Your task to perform on an android device: turn pop-ups off in chrome Image 0: 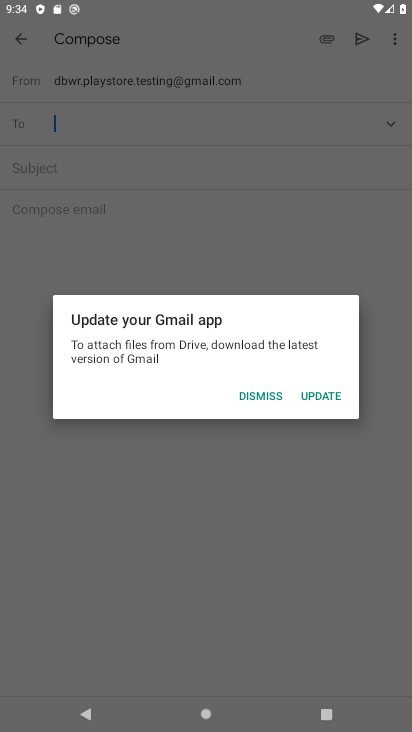
Step 0: press home button
Your task to perform on an android device: turn pop-ups off in chrome Image 1: 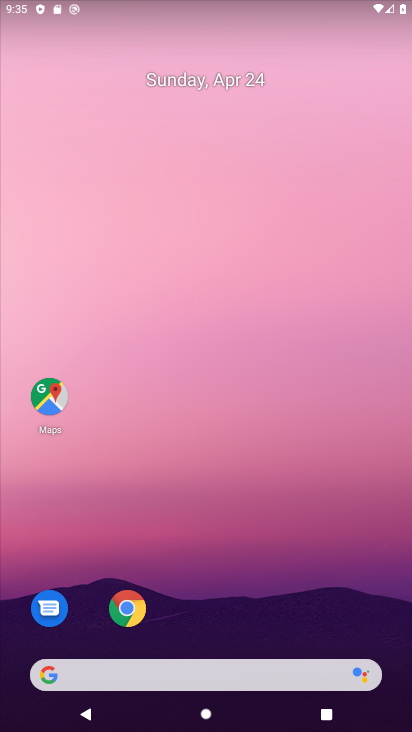
Step 1: drag from (274, 689) to (281, 203)
Your task to perform on an android device: turn pop-ups off in chrome Image 2: 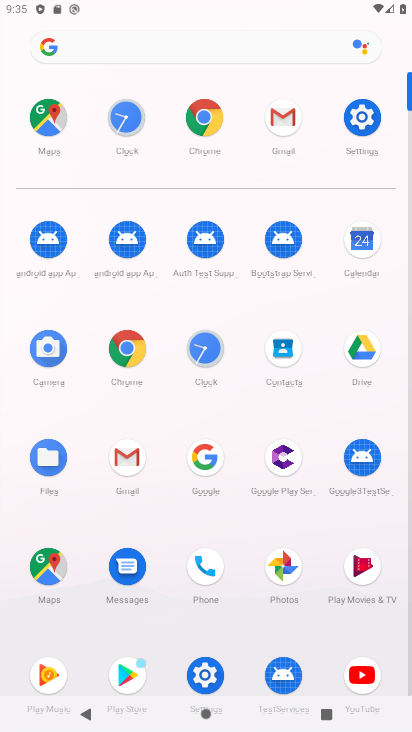
Step 2: click (221, 116)
Your task to perform on an android device: turn pop-ups off in chrome Image 3: 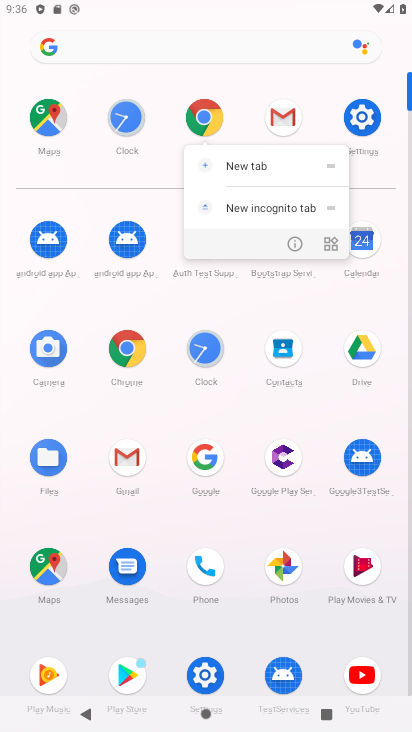
Step 3: click (207, 110)
Your task to perform on an android device: turn pop-ups off in chrome Image 4: 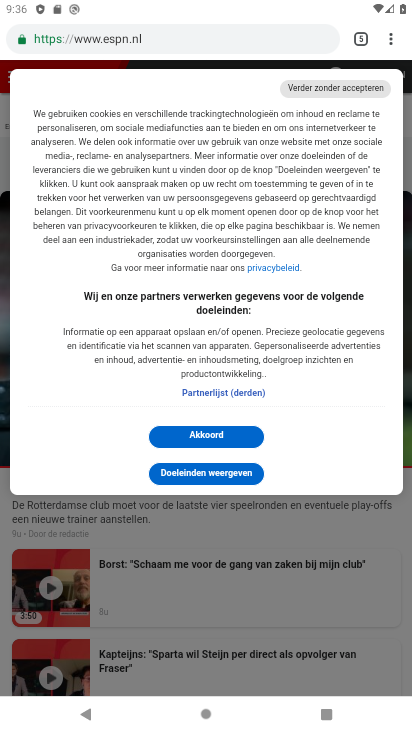
Step 4: click (389, 43)
Your task to perform on an android device: turn pop-ups off in chrome Image 5: 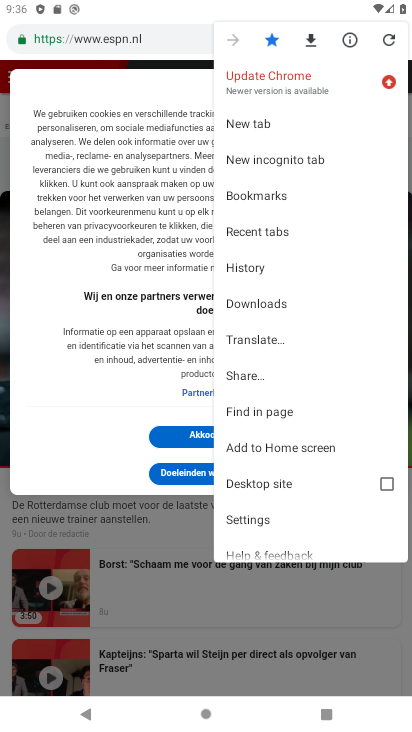
Step 5: click (248, 509)
Your task to perform on an android device: turn pop-ups off in chrome Image 6: 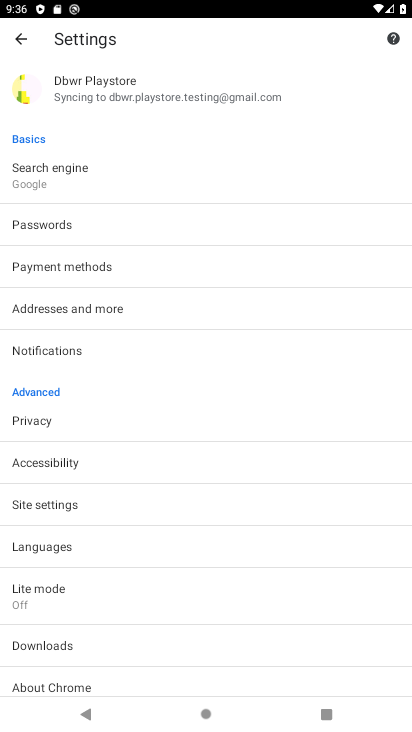
Step 6: click (48, 498)
Your task to perform on an android device: turn pop-ups off in chrome Image 7: 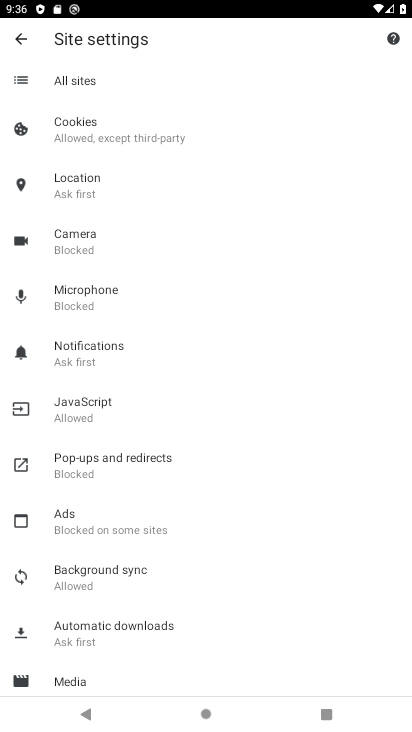
Step 7: click (68, 470)
Your task to perform on an android device: turn pop-ups off in chrome Image 8: 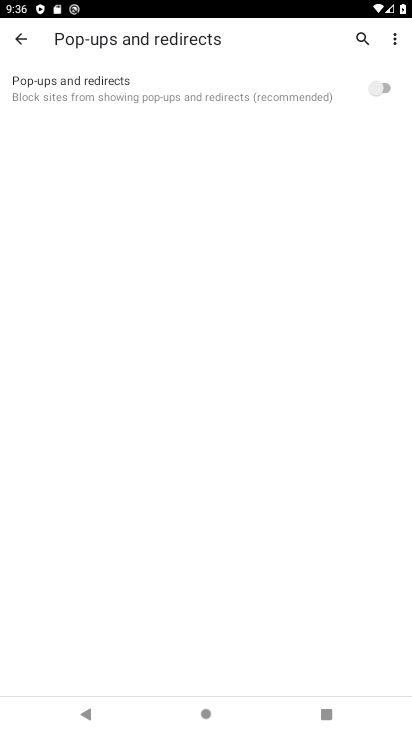
Step 8: click (340, 79)
Your task to perform on an android device: turn pop-ups off in chrome Image 9: 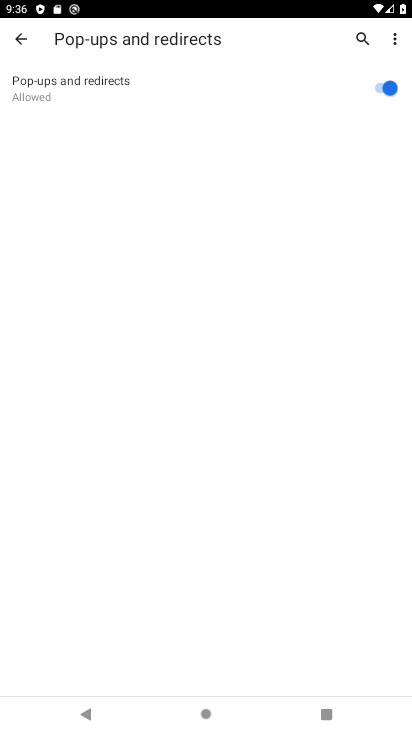
Step 9: click (346, 84)
Your task to perform on an android device: turn pop-ups off in chrome Image 10: 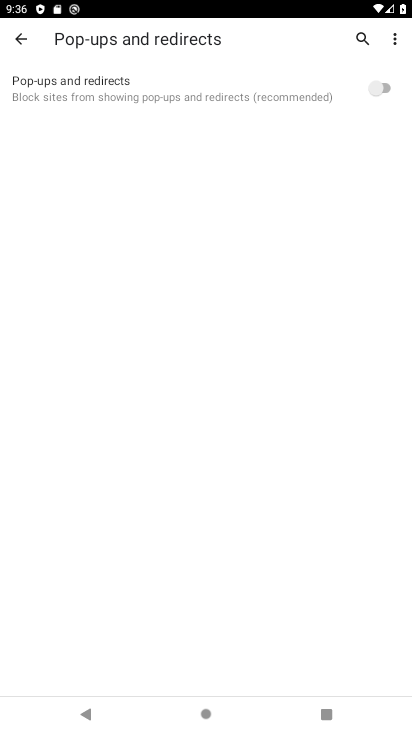
Step 10: task complete